Your task to perform on an android device: Open wifi settings Image 0: 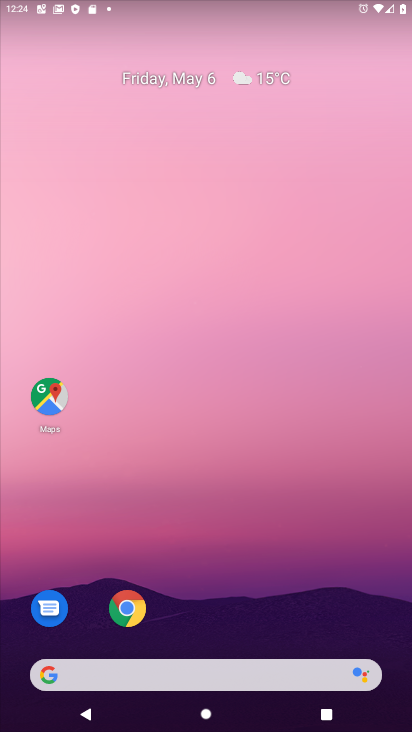
Step 0: drag from (247, 605) to (235, 209)
Your task to perform on an android device: Open wifi settings Image 1: 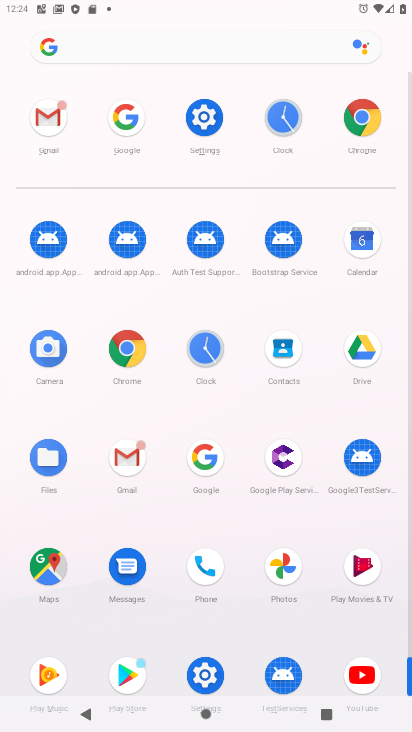
Step 1: click (197, 132)
Your task to perform on an android device: Open wifi settings Image 2: 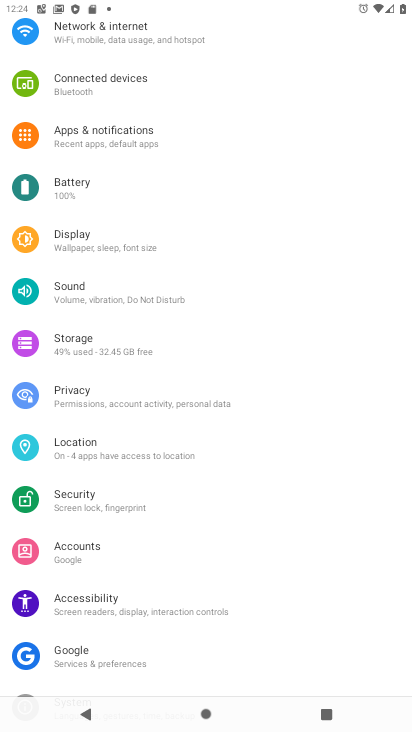
Step 2: click (130, 41)
Your task to perform on an android device: Open wifi settings Image 3: 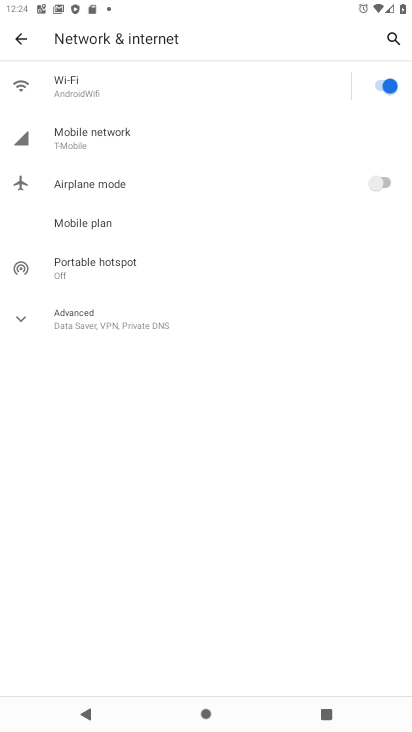
Step 3: click (147, 93)
Your task to perform on an android device: Open wifi settings Image 4: 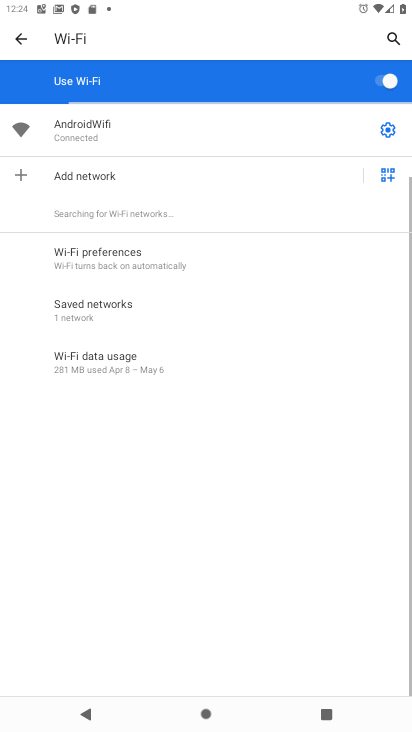
Step 4: task complete